Your task to perform on an android device: turn on showing notifications on the lock screen Image 0: 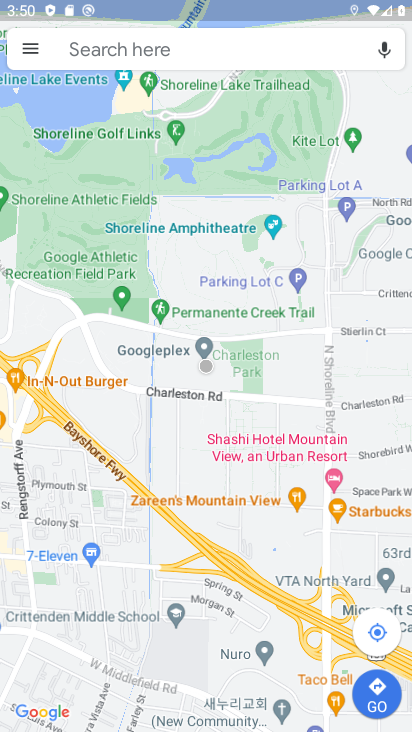
Step 0: click (115, 635)
Your task to perform on an android device: turn on showing notifications on the lock screen Image 1: 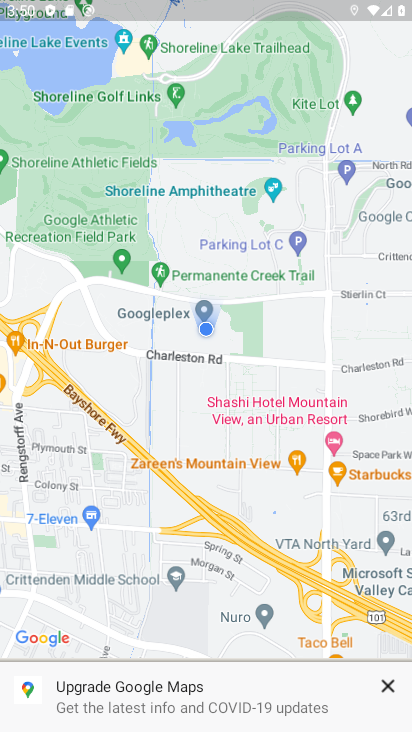
Step 1: press home button
Your task to perform on an android device: turn on showing notifications on the lock screen Image 2: 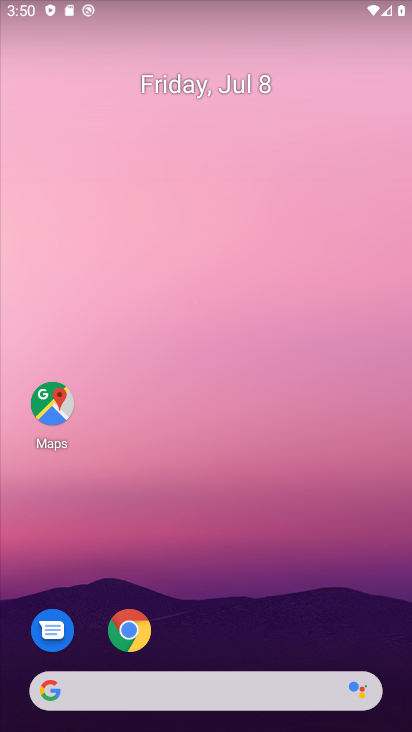
Step 2: drag from (3, 716) to (287, 24)
Your task to perform on an android device: turn on showing notifications on the lock screen Image 3: 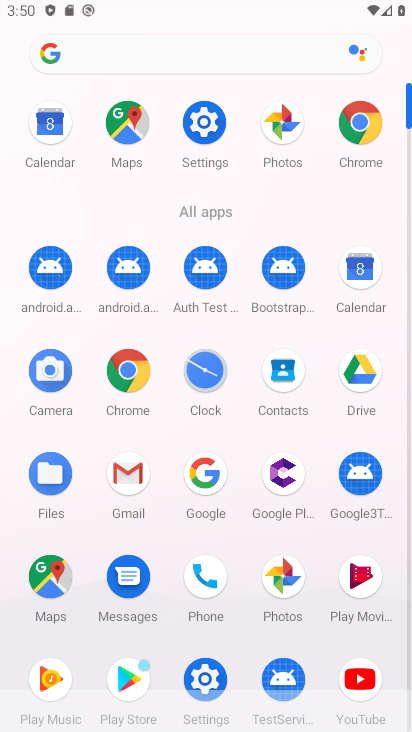
Step 3: click (203, 672)
Your task to perform on an android device: turn on showing notifications on the lock screen Image 4: 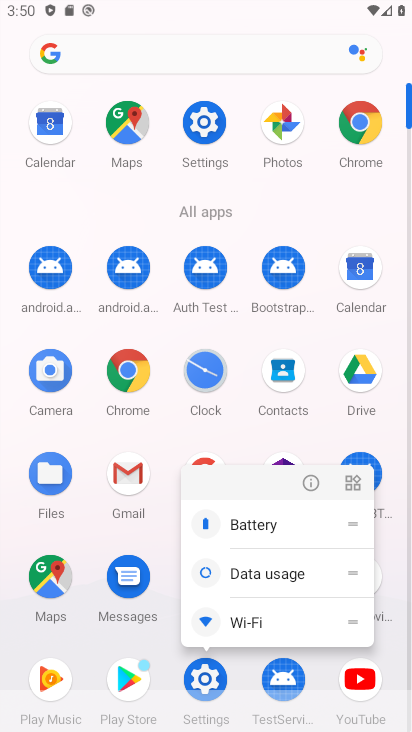
Step 4: click (211, 682)
Your task to perform on an android device: turn on showing notifications on the lock screen Image 5: 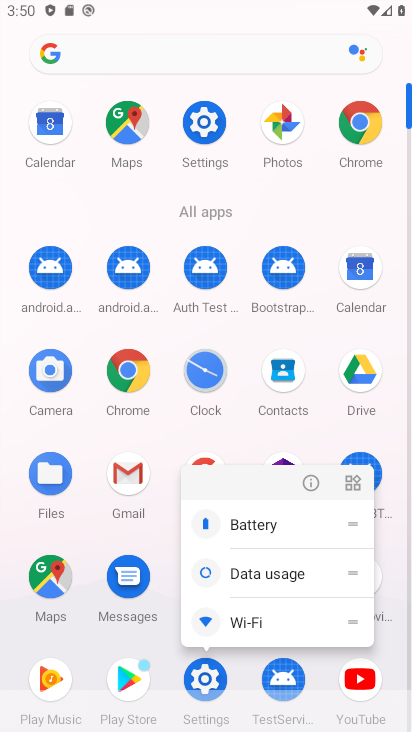
Step 5: click (201, 700)
Your task to perform on an android device: turn on showing notifications on the lock screen Image 6: 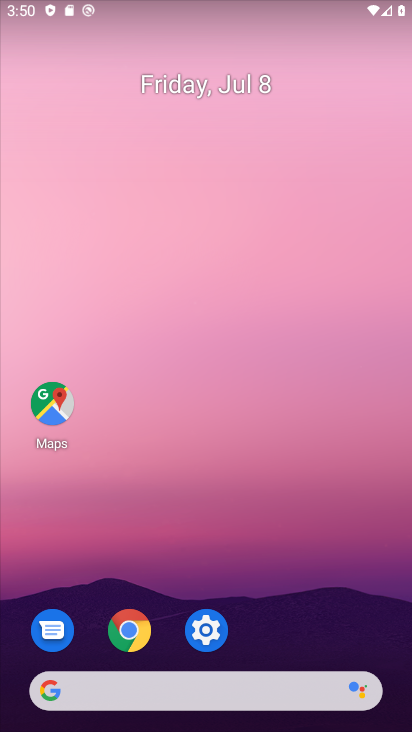
Step 6: task complete